Your task to perform on an android device: Open notification settings Image 0: 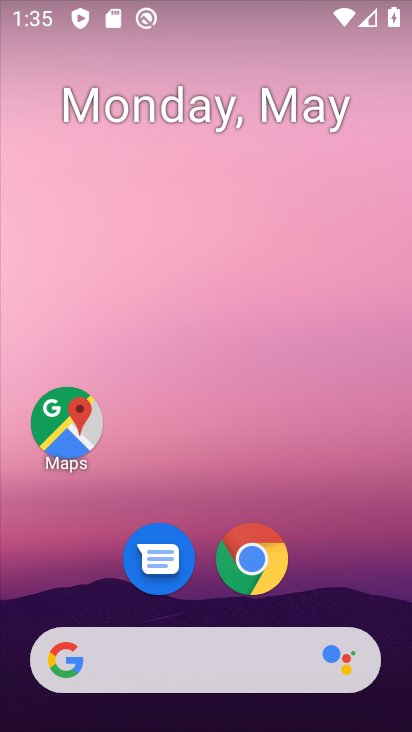
Step 0: drag from (323, 547) to (217, 46)
Your task to perform on an android device: Open notification settings Image 1: 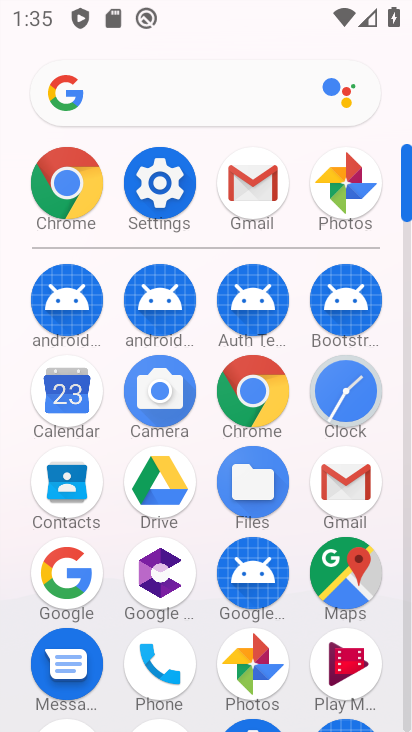
Step 1: click (156, 183)
Your task to perform on an android device: Open notification settings Image 2: 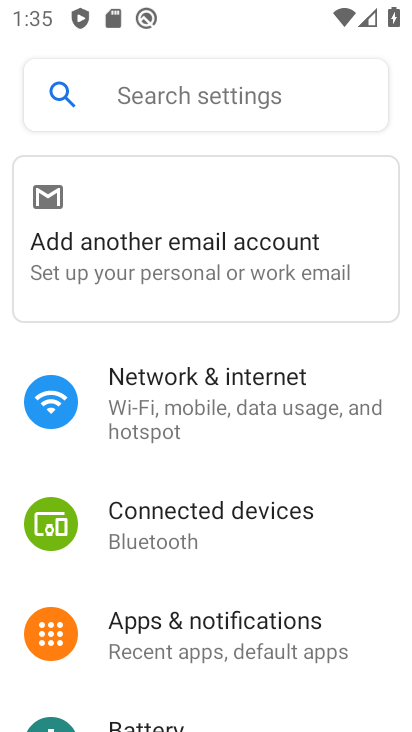
Step 2: click (210, 624)
Your task to perform on an android device: Open notification settings Image 3: 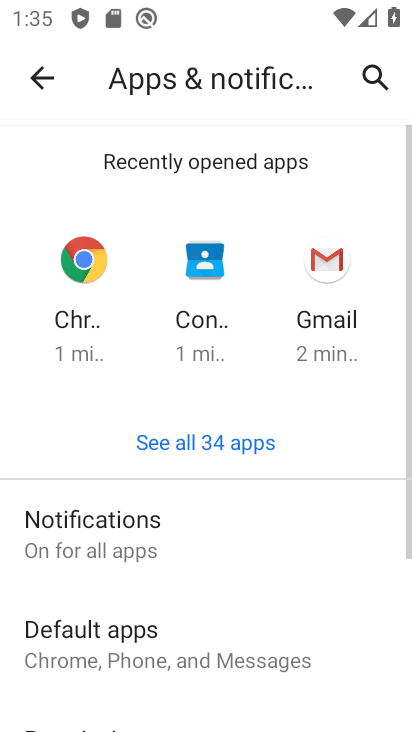
Step 3: click (157, 539)
Your task to perform on an android device: Open notification settings Image 4: 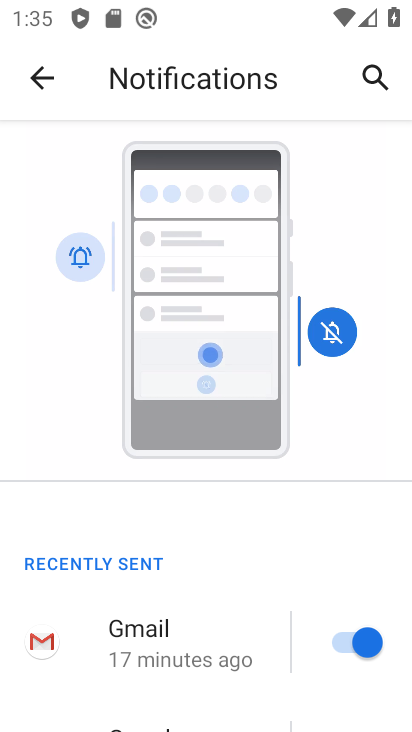
Step 4: task complete